Your task to perform on an android device: Clear the shopping cart on ebay. Search for "usb-a" on ebay, select the first entry, add it to the cart, then select checkout. Image 0: 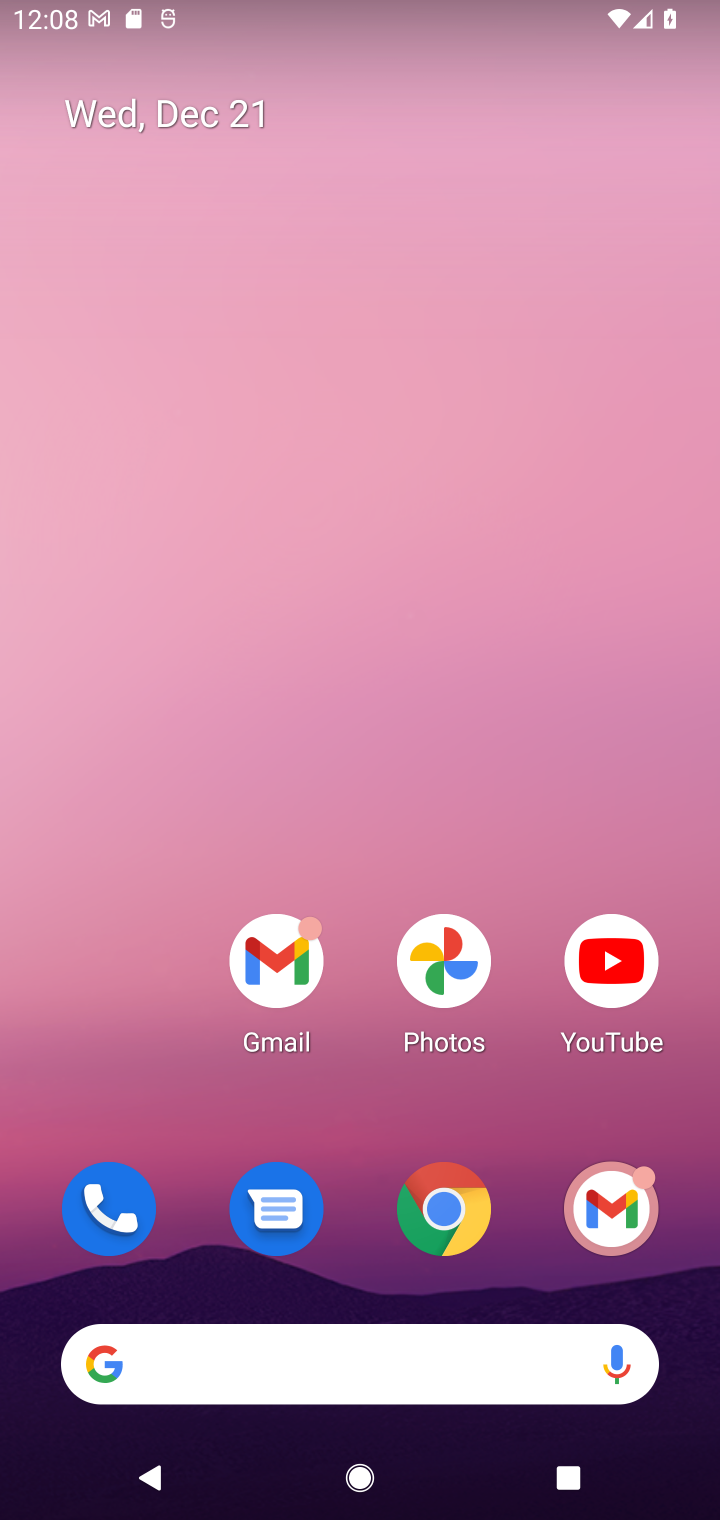
Step 0: click (455, 1224)
Your task to perform on an android device: Clear the shopping cart on ebay. Search for "usb-a" on ebay, select the first entry, add it to the cart, then select checkout. Image 1: 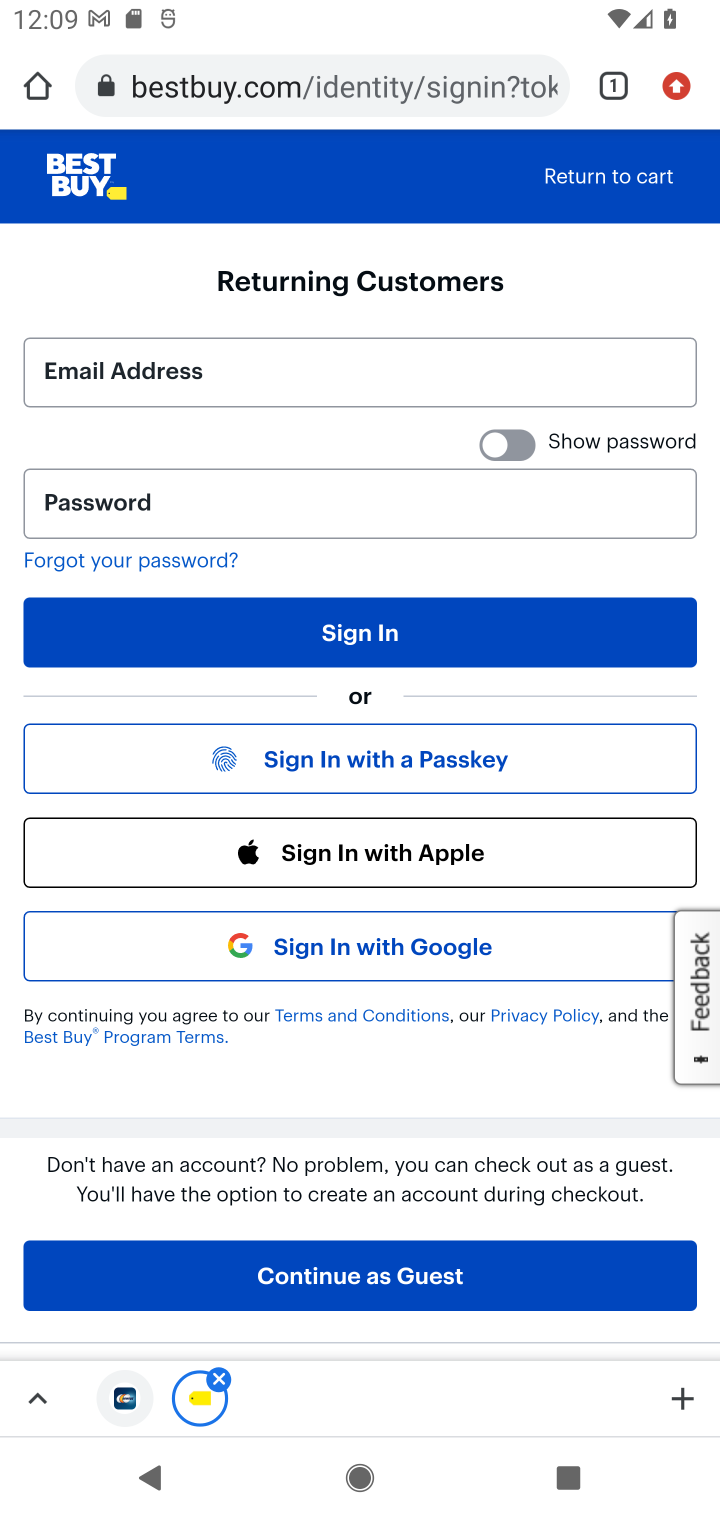
Step 1: click (340, 81)
Your task to perform on an android device: Clear the shopping cart on ebay. Search for "usb-a" on ebay, select the first entry, add it to the cart, then select checkout. Image 2: 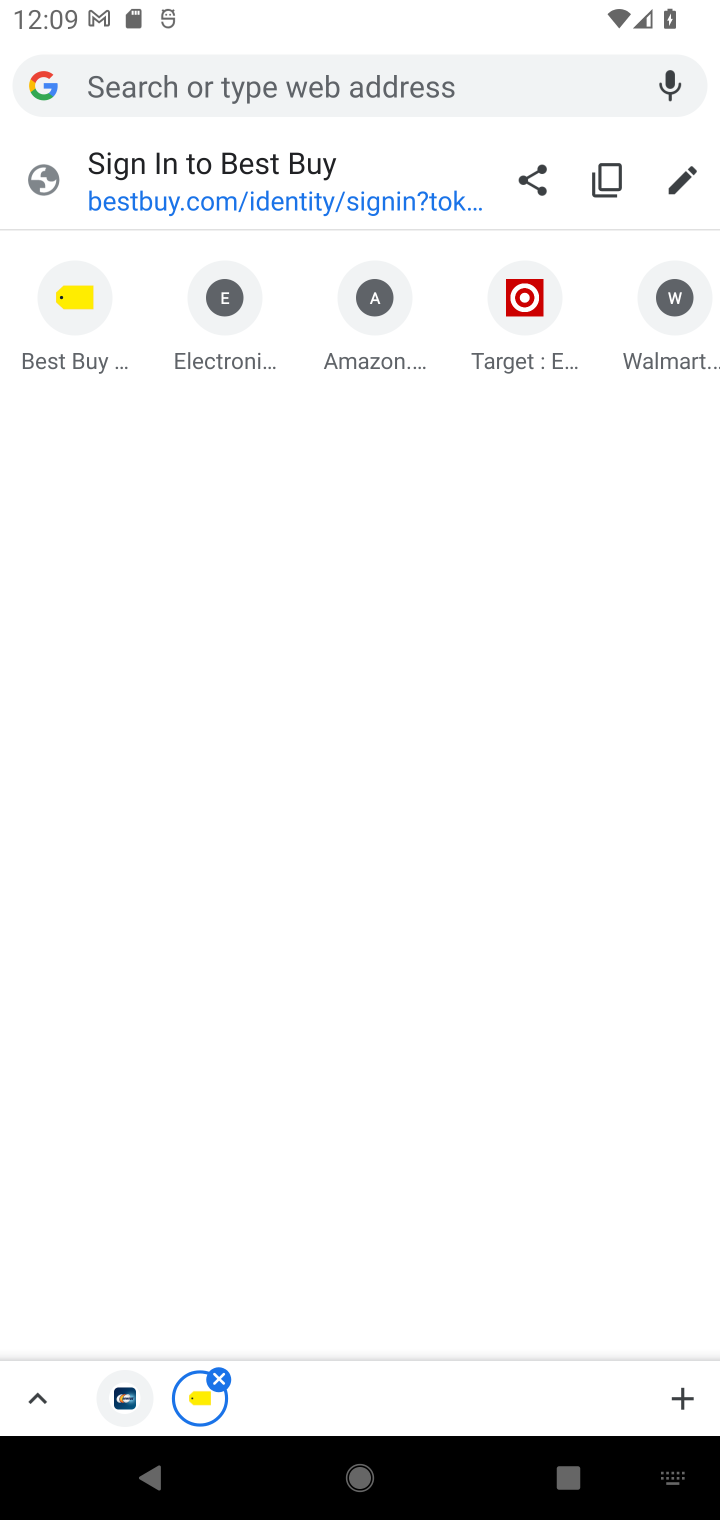
Step 2: type "ebay.com"
Your task to perform on an android device: Clear the shopping cart on ebay. Search for "usb-a" on ebay, select the first entry, add it to the cart, then select checkout. Image 3: 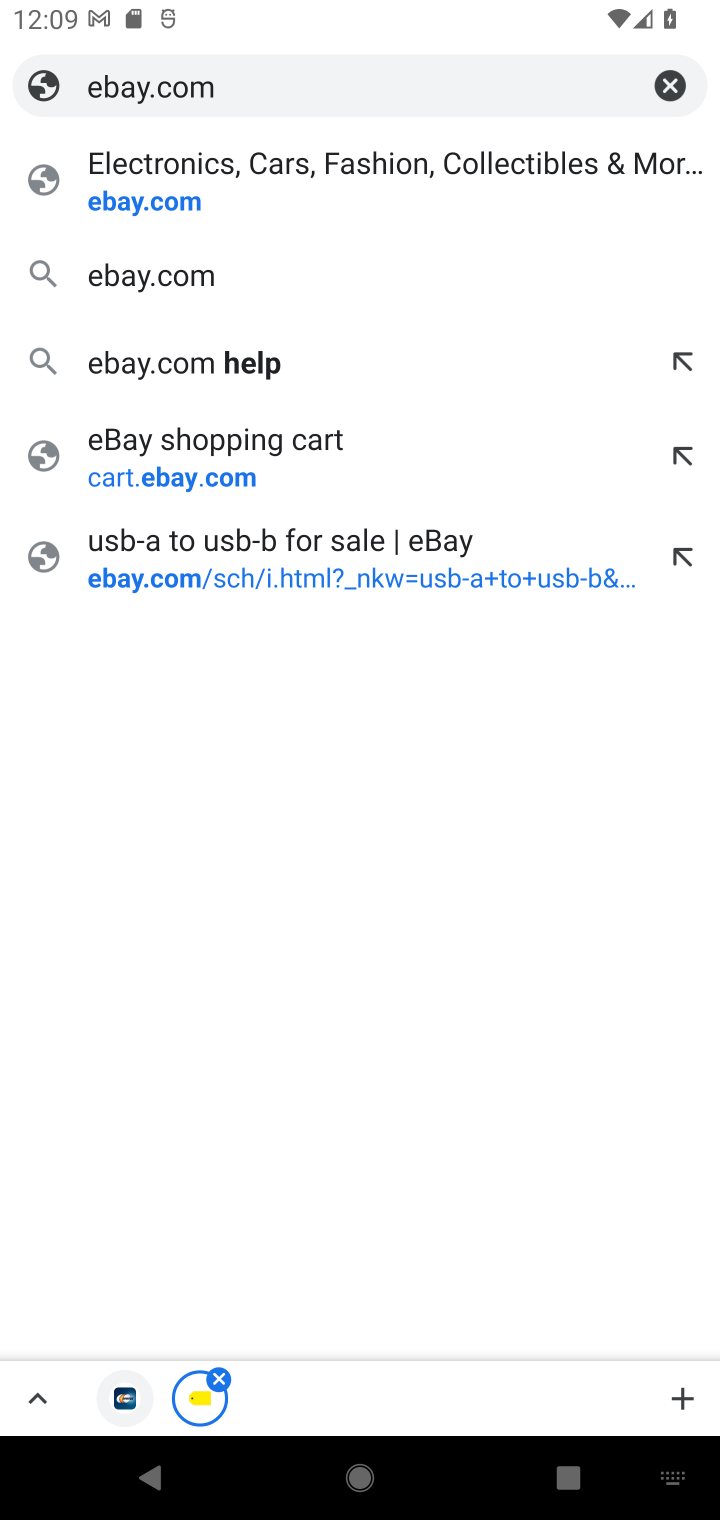
Step 3: click (133, 205)
Your task to perform on an android device: Clear the shopping cart on ebay. Search for "usb-a" on ebay, select the first entry, add it to the cart, then select checkout. Image 4: 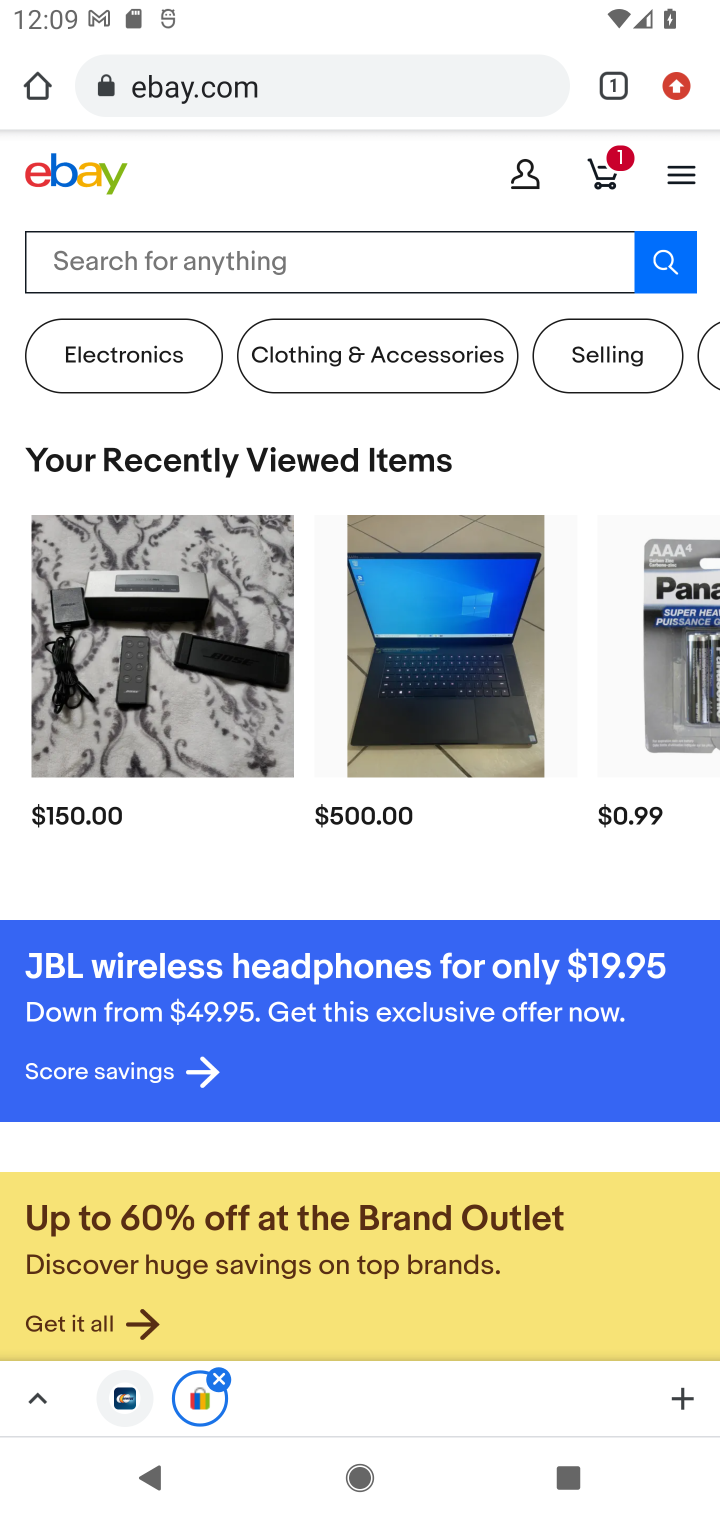
Step 4: click (610, 167)
Your task to perform on an android device: Clear the shopping cart on ebay. Search for "usb-a" on ebay, select the first entry, add it to the cart, then select checkout. Image 5: 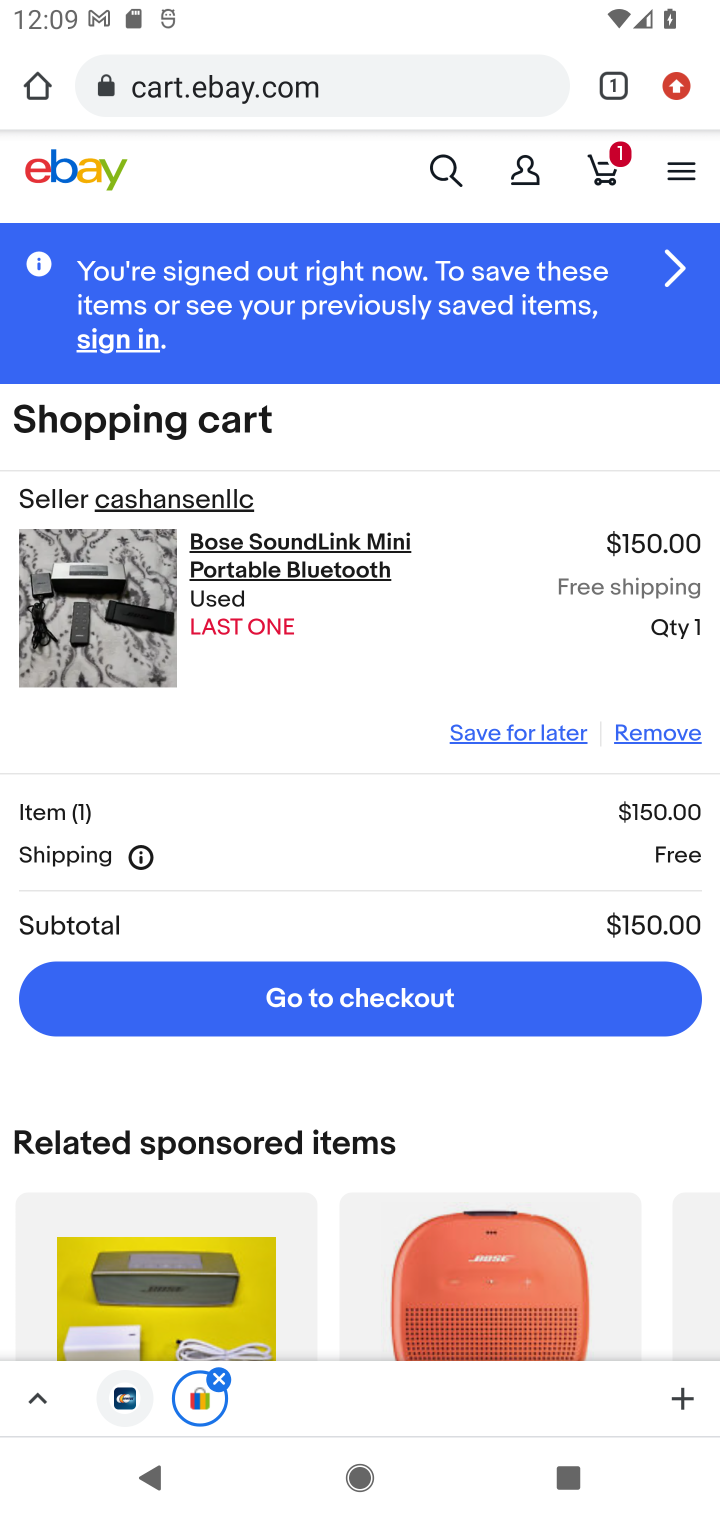
Step 5: click (651, 742)
Your task to perform on an android device: Clear the shopping cart on ebay. Search for "usb-a" on ebay, select the first entry, add it to the cart, then select checkout. Image 6: 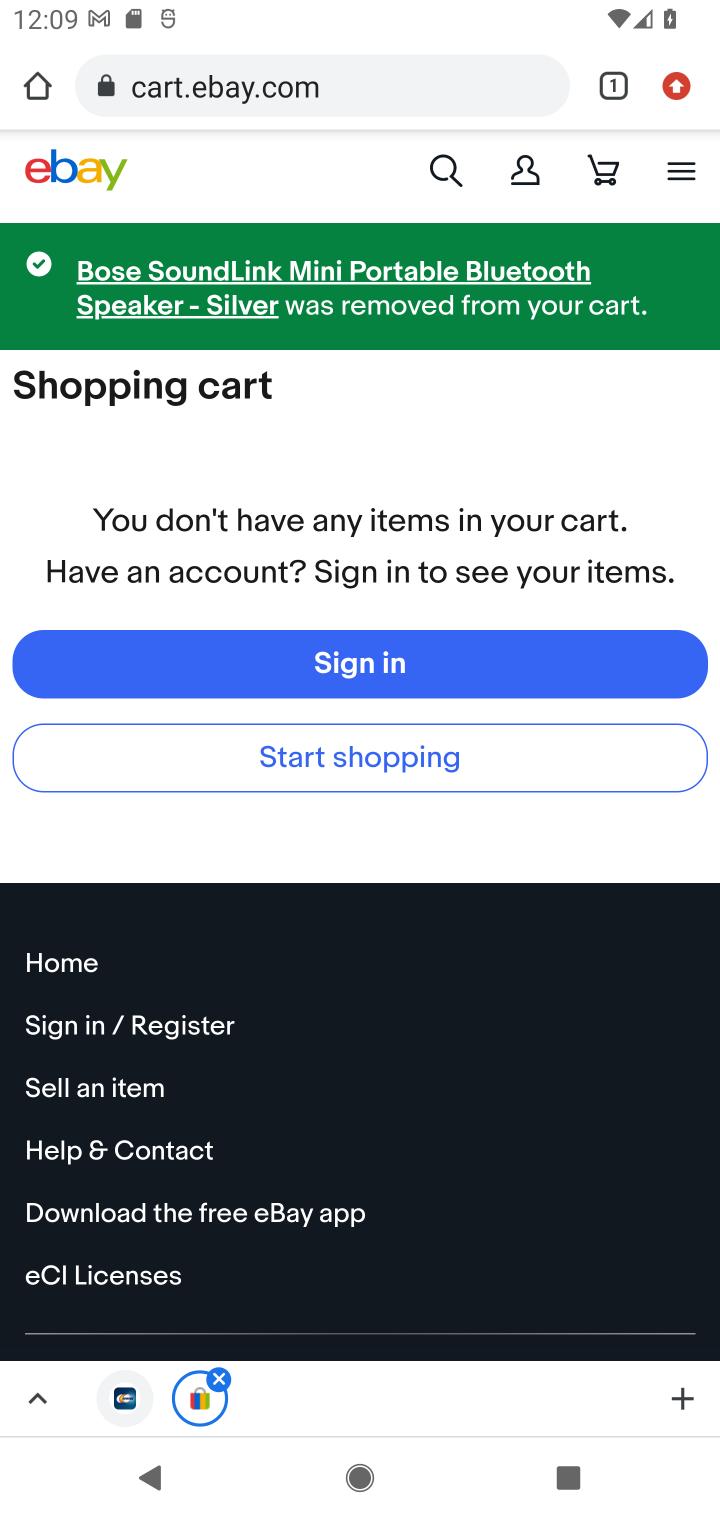
Step 6: click (428, 164)
Your task to perform on an android device: Clear the shopping cart on ebay. Search for "usb-a" on ebay, select the first entry, add it to the cart, then select checkout. Image 7: 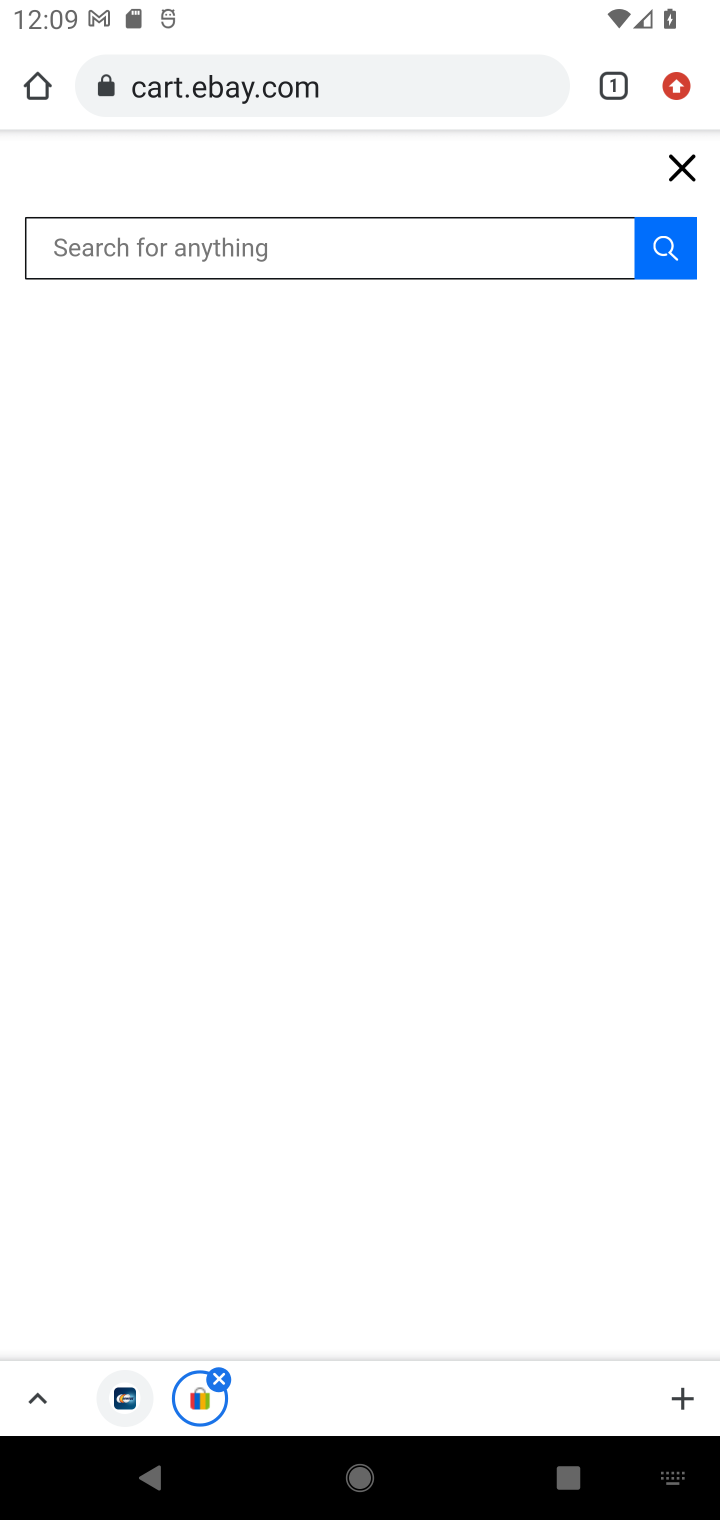
Step 7: type "usb-a"
Your task to perform on an android device: Clear the shopping cart on ebay. Search for "usb-a" on ebay, select the first entry, add it to the cart, then select checkout. Image 8: 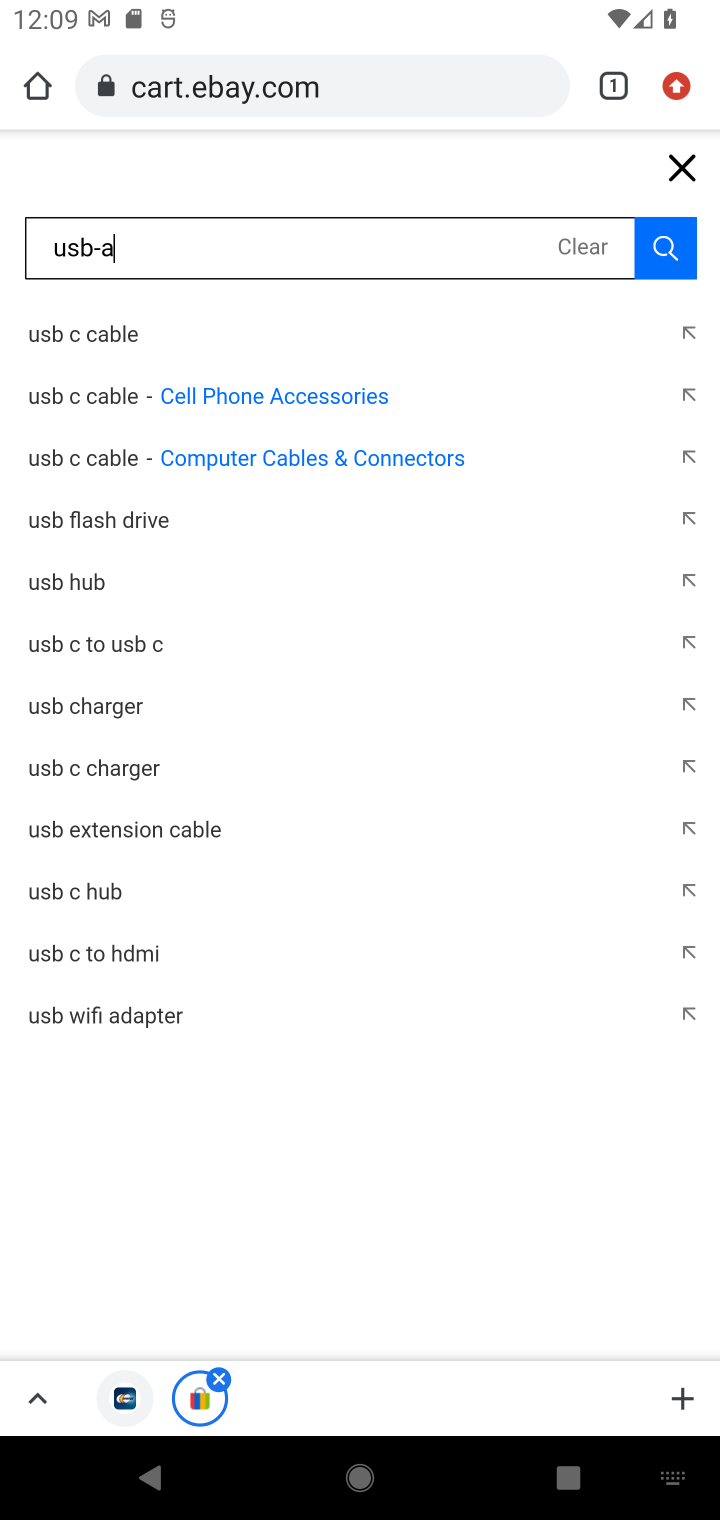
Step 8: click (655, 252)
Your task to perform on an android device: Clear the shopping cart on ebay. Search for "usb-a" on ebay, select the first entry, add it to the cart, then select checkout. Image 9: 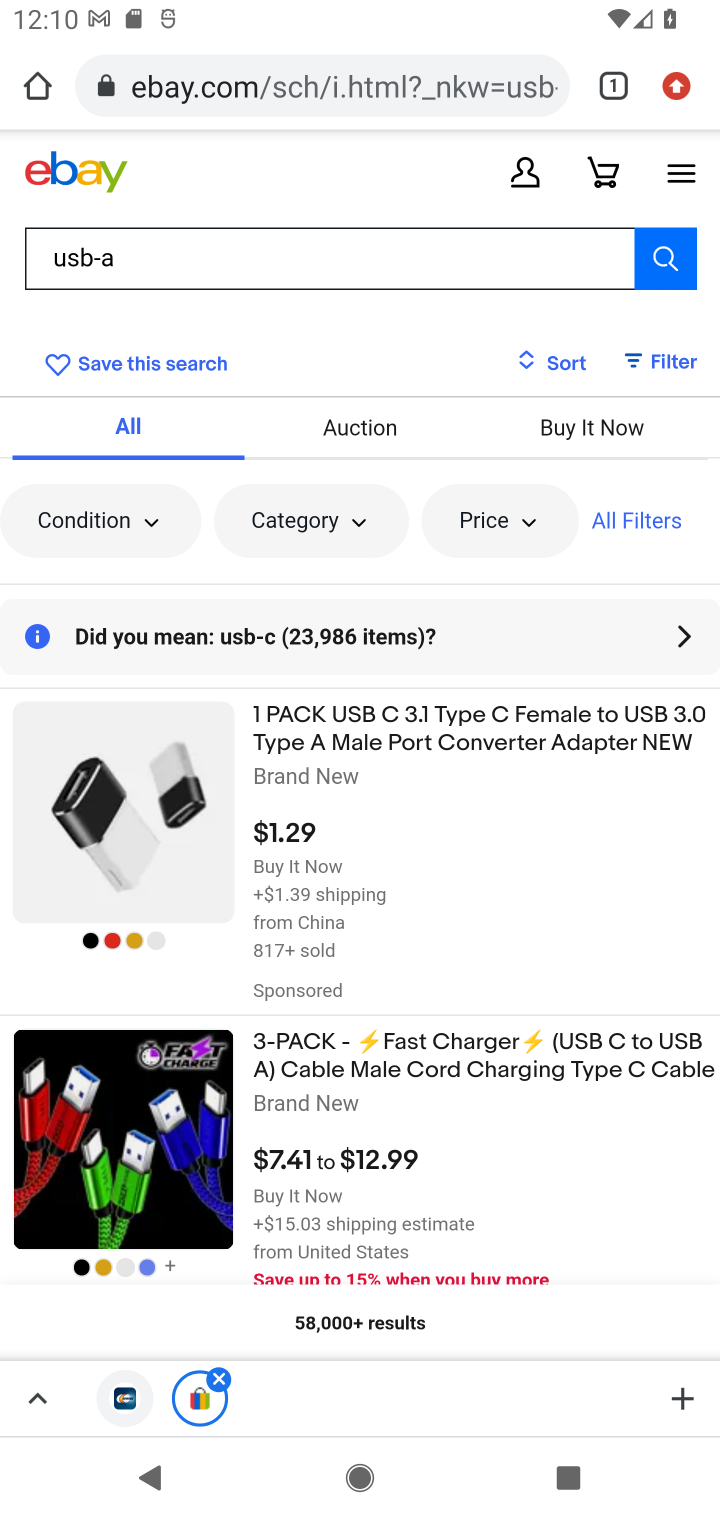
Step 9: click (339, 744)
Your task to perform on an android device: Clear the shopping cart on ebay. Search for "usb-a" on ebay, select the first entry, add it to the cart, then select checkout. Image 10: 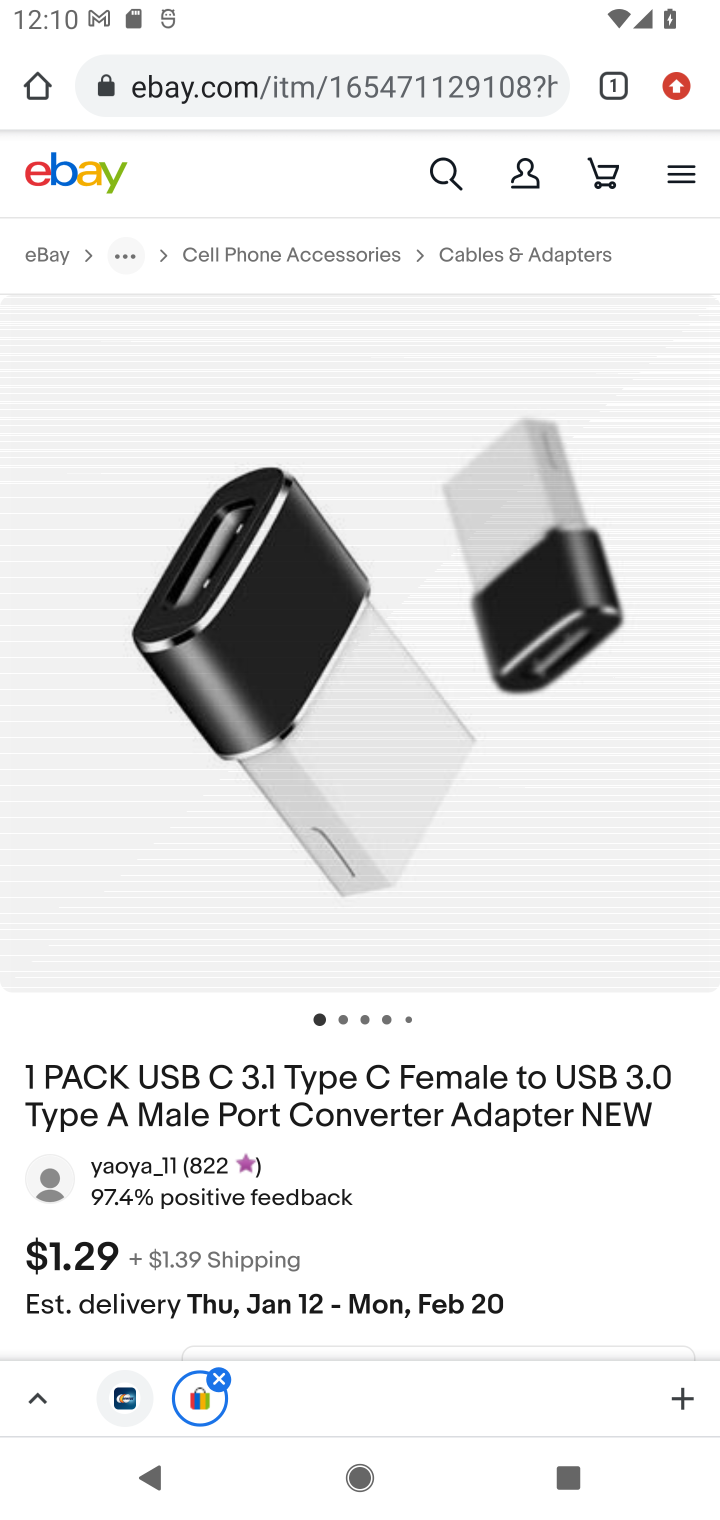
Step 10: drag from (283, 1141) to (328, 532)
Your task to perform on an android device: Clear the shopping cart on ebay. Search for "usb-a" on ebay, select the first entry, add it to the cart, then select checkout. Image 11: 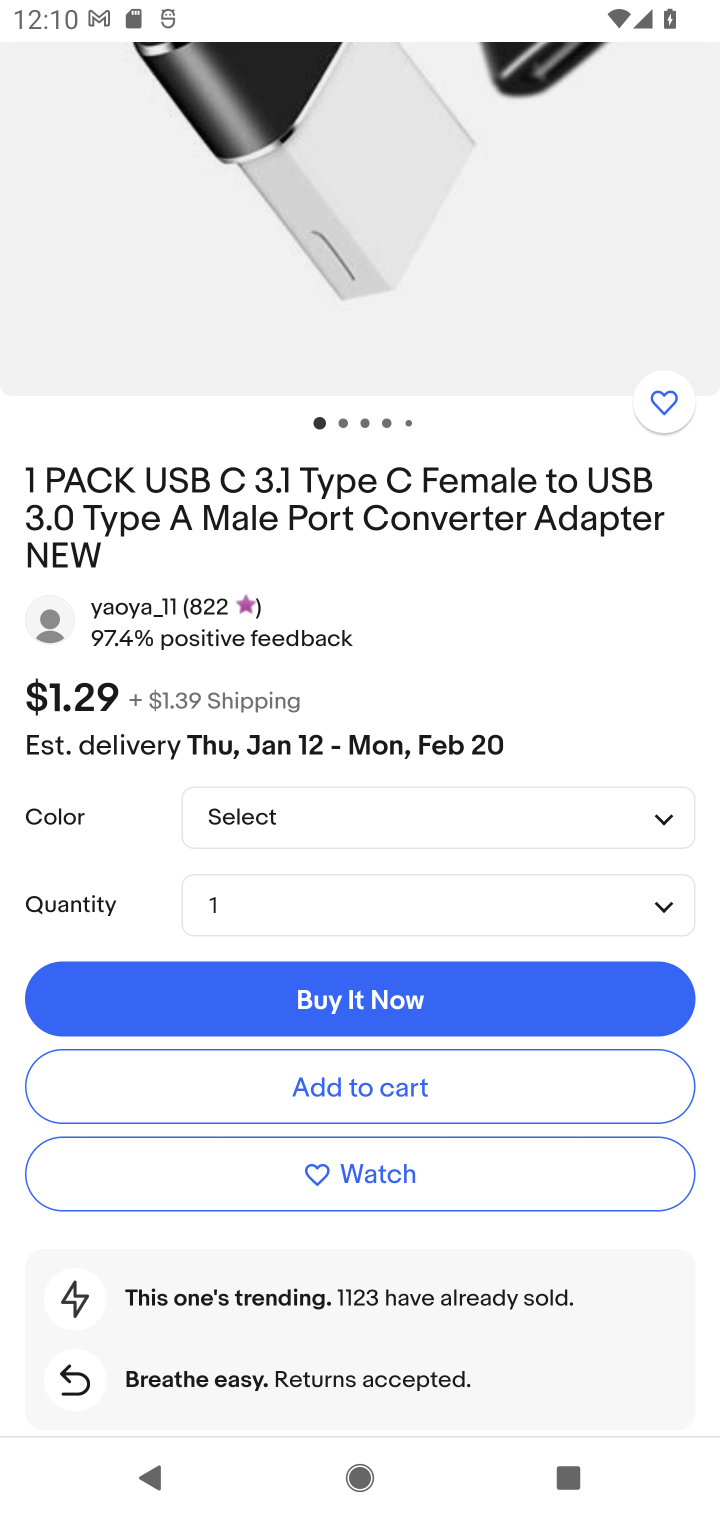
Step 11: click (335, 1089)
Your task to perform on an android device: Clear the shopping cart on ebay. Search for "usb-a" on ebay, select the first entry, add it to the cart, then select checkout. Image 12: 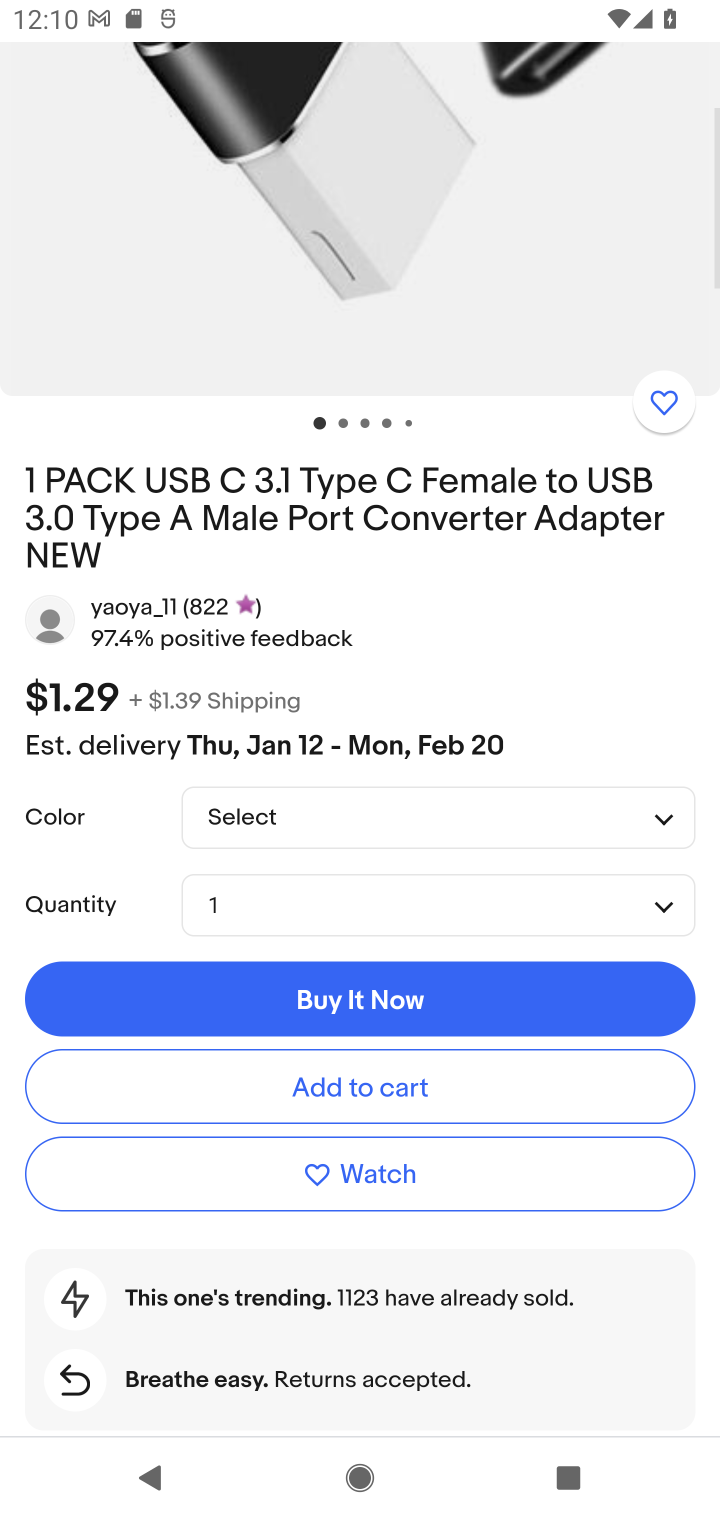
Step 12: click (357, 1095)
Your task to perform on an android device: Clear the shopping cart on ebay. Search for "usb-a" on ebay, select the first entry, add it to the cart, then select checkout. Image 13: 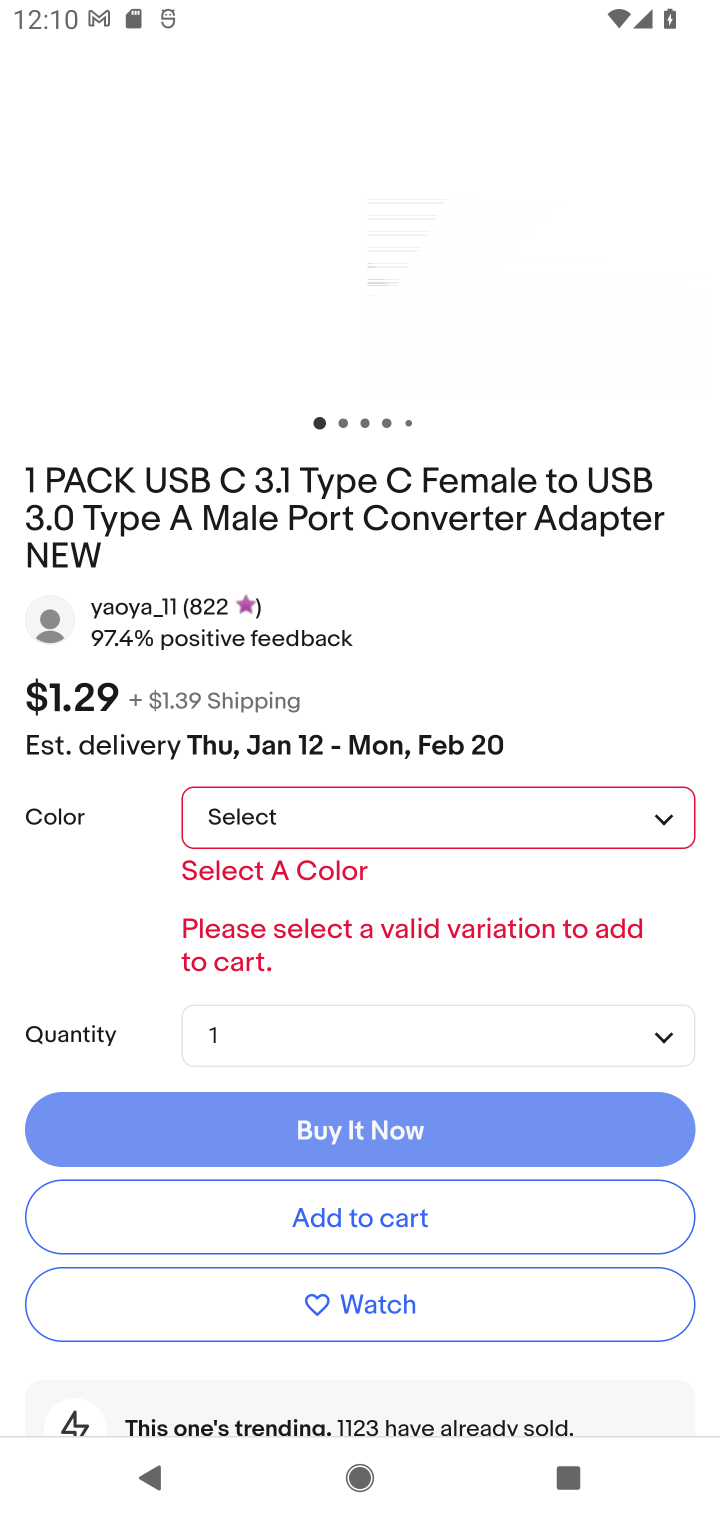
Step 13: click (667, 824)
Your task to perform on an android device: Clear the shopping cart on ebay. Search for "usb-a" on ebay, select the first entry, add it to the cart, then select checkout. Image 14: 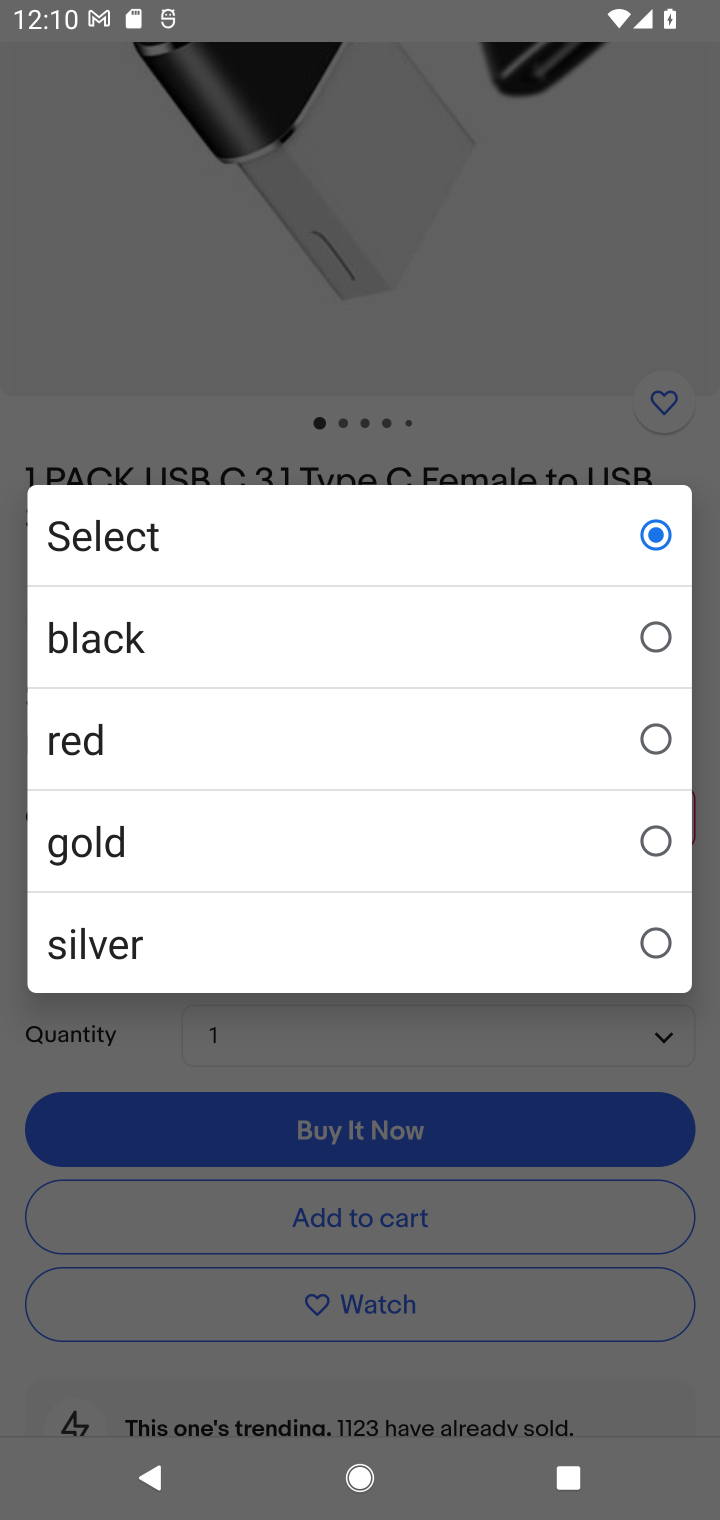
Step 14: click (101, 737)
Your task to perform on an android device: Clear the shopping cart on ebay. Search for "usb-a" on ebay, select the first entry, add it to the cart, then select checkout. Image 15: 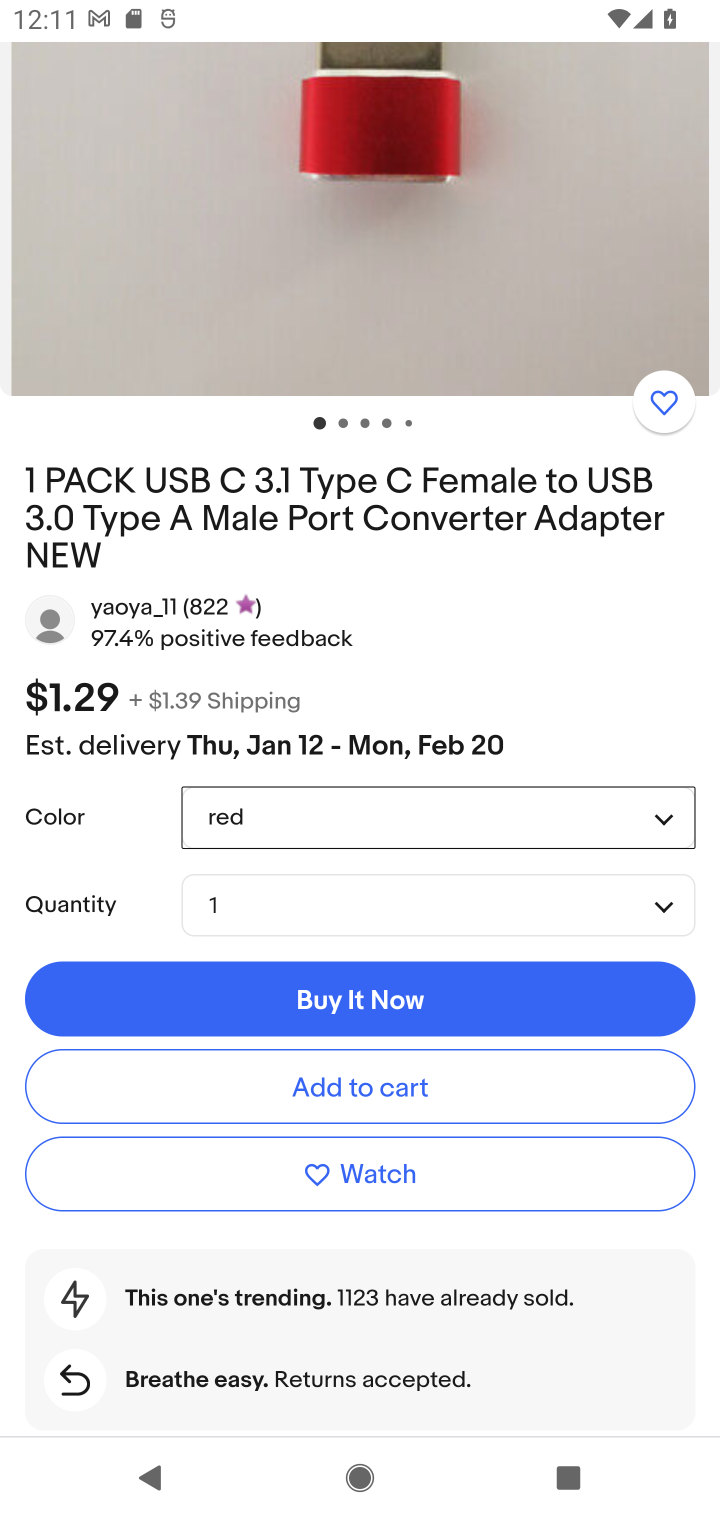
Step 15: click (348, 1097)
Your task to perform on an android device: Clear the shopping cart on ebay. Search for "usb-a" on ebay, select the first entry, add it to the cart, then select checkout. Image 16: 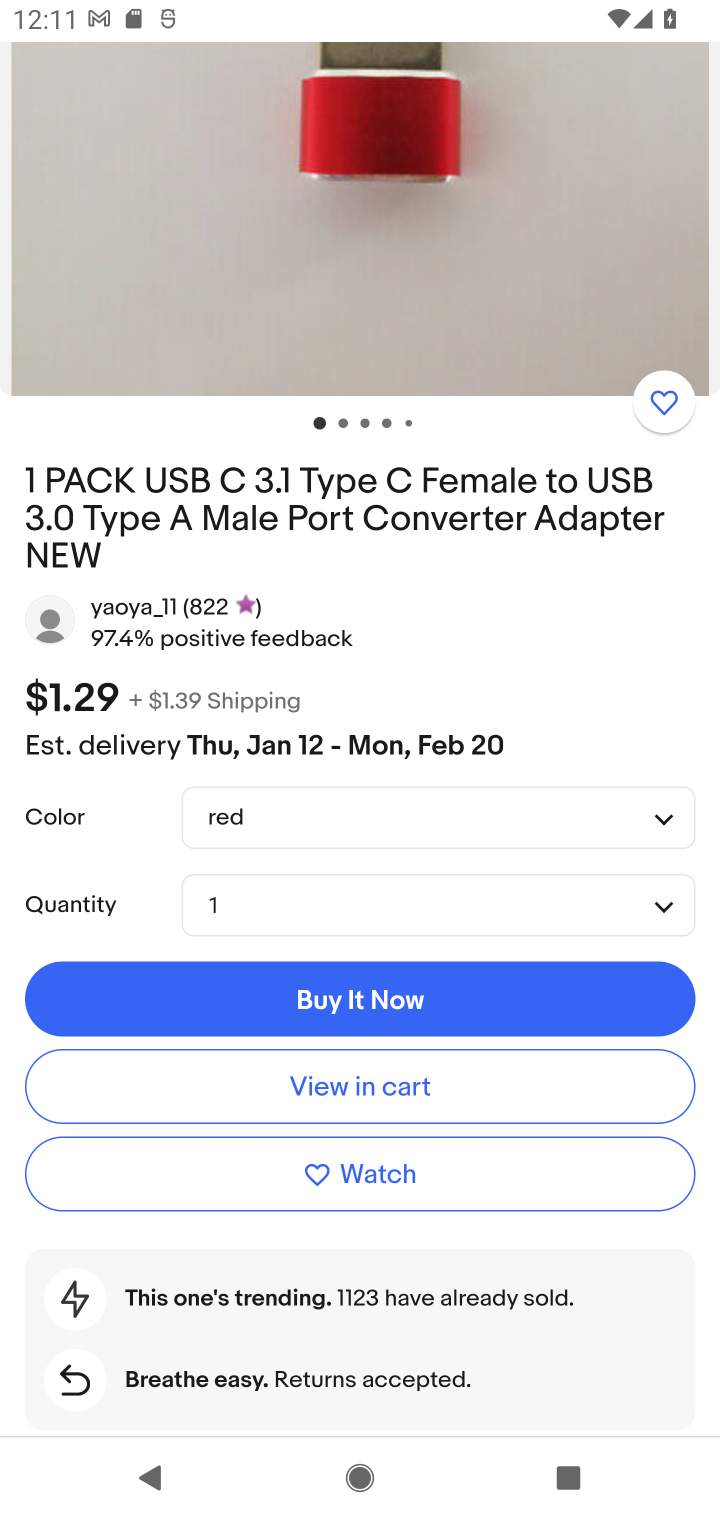
Step 16: click (348, 1097)
Your task to perform on an android device: Clear the shopping cart on ebay. Search for "usb-a" on ebay, select the first entry, add it to the cart, then select checkout. Image 17: 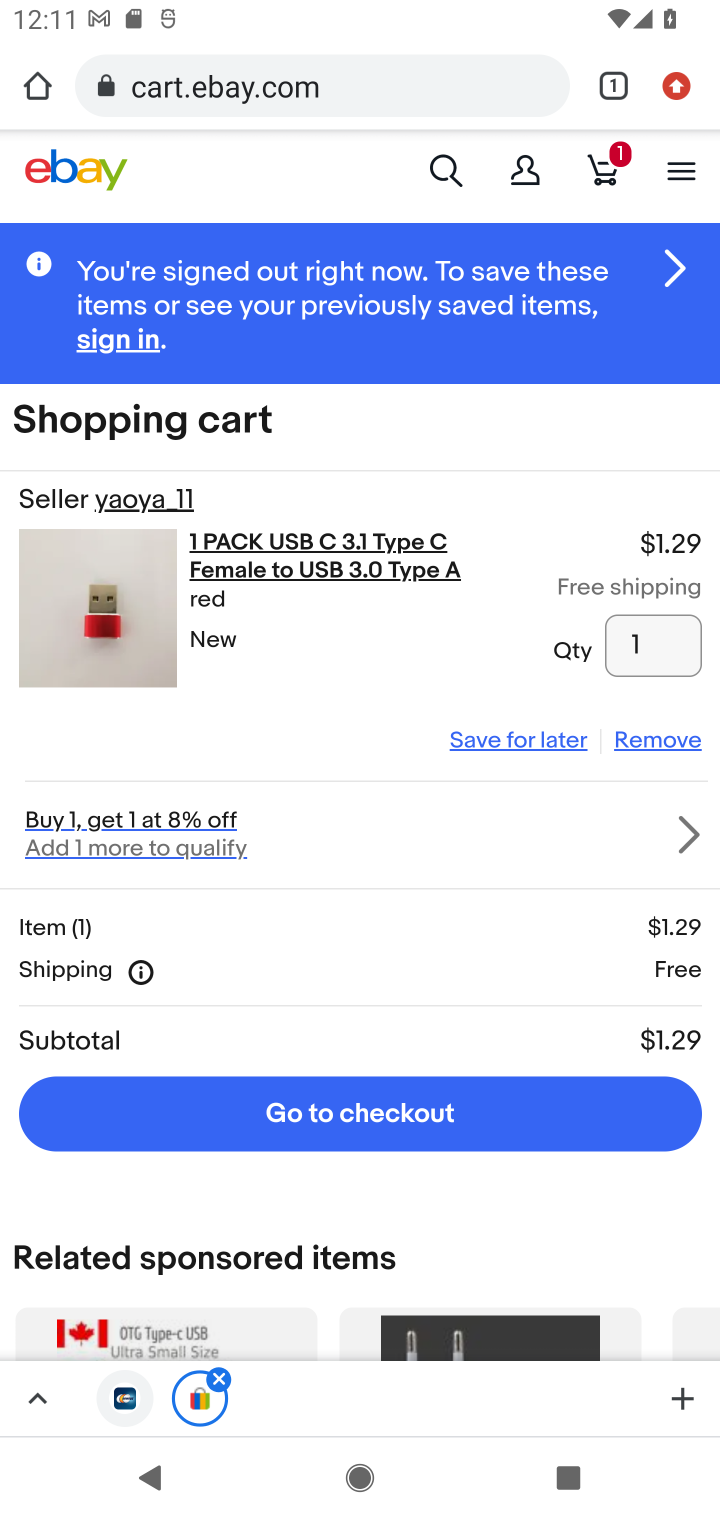
Step 17: click (342, 1121)
Your task to perform on an android device: Clear the shopping cart on ebay. Search for "usb-a" on ebay, select the first entry, add it to the cart, then select checkout. Image 18: 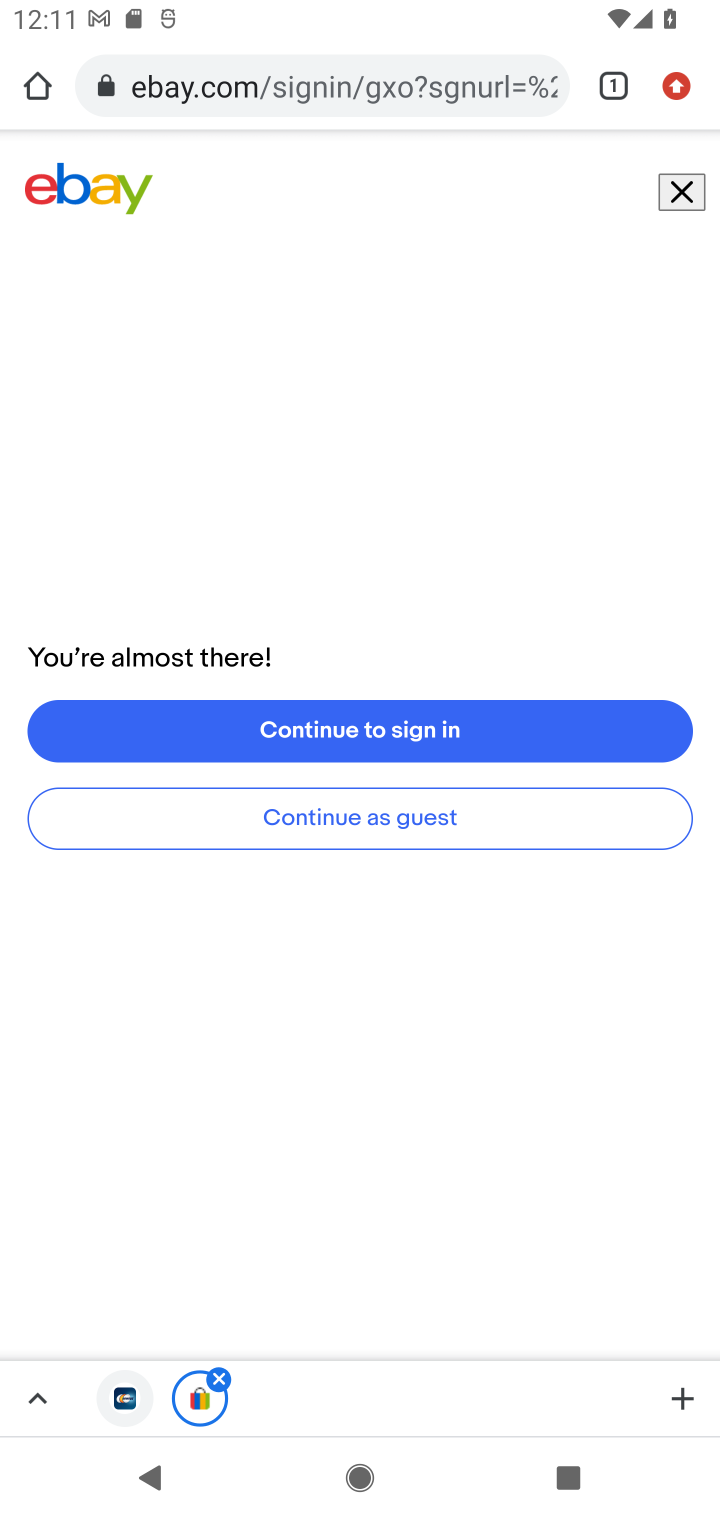
Step 18: task complete